Your task to perform on an android device: refresh tabs in the chrome app Image 0: 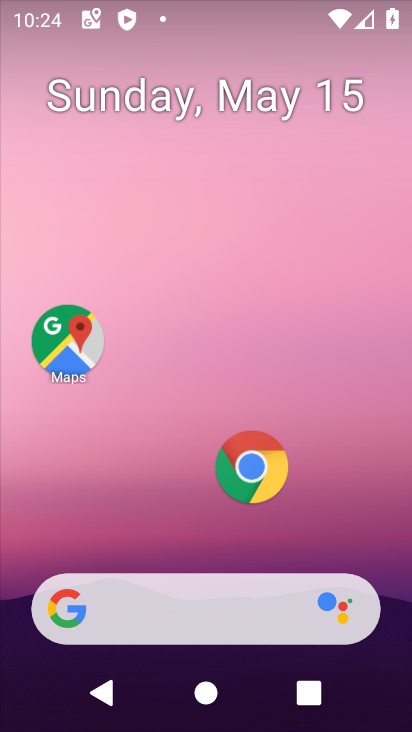
Step 0: drag from (191, 514) to (221, 237)
Your task to perform on an android device: refresh tabs in the chrome app Image 1: 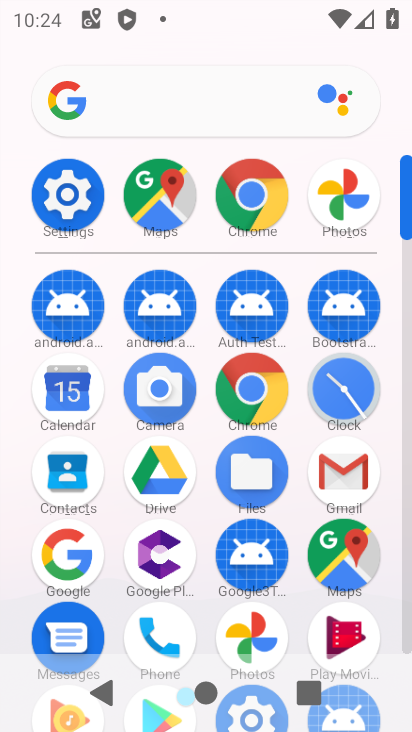
Step 1: click (250, 196)
Your task to perform on an android device: refresh tabs in the chrome app Image 2: 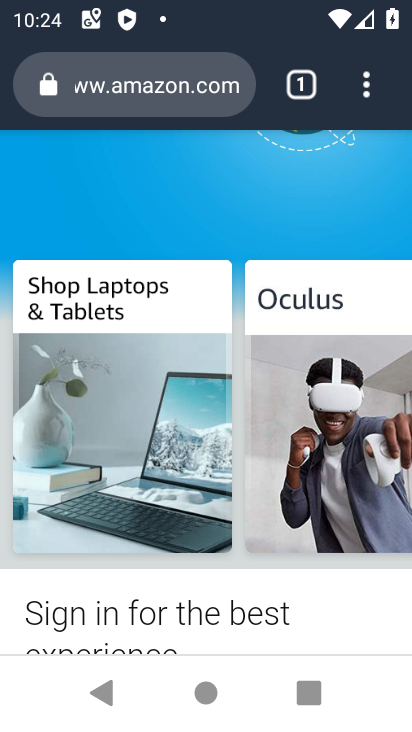
Step 2: click (366, 90)
Your task to perform on an android device: refresh tabs in the chrome app Image 3: 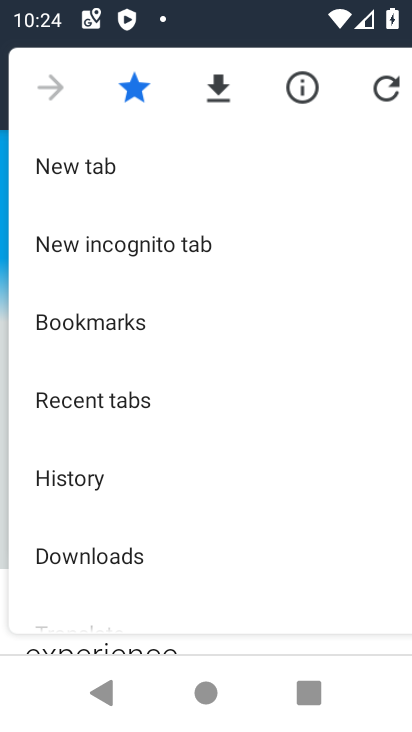
Step 3: click (366, 90)
Your task to perform on an android device: refresh tabs in the chrome app Image 4: 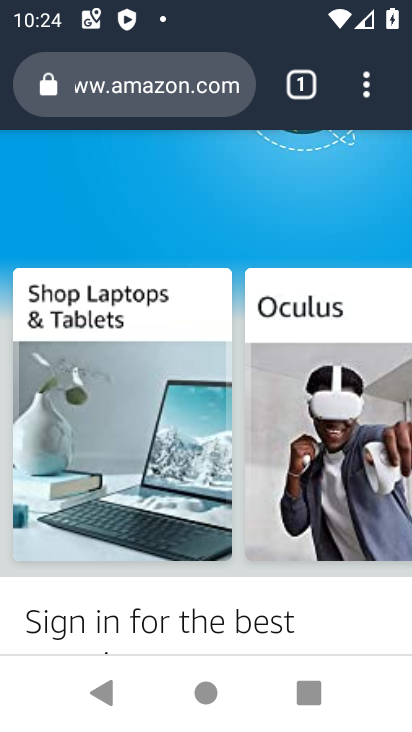
Step 4: task complete